Your task to perform on an android device: move an email to a new category in the gmail app Image 0: 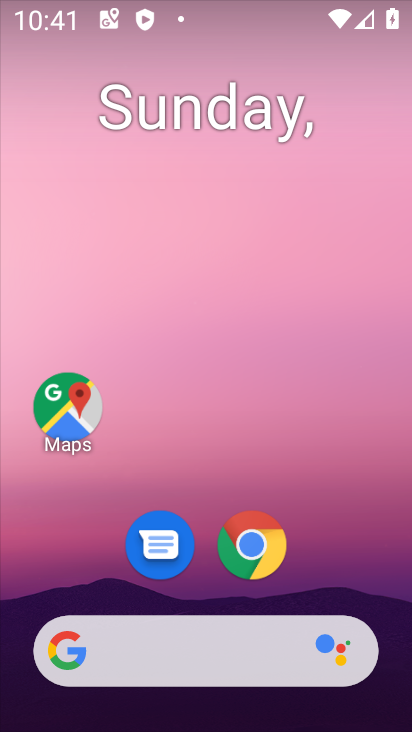
Step 0: drag from (95, 609) to (226, 136)
Your task to perform on an android device: move an email to a new category in the gmail app Image 1: 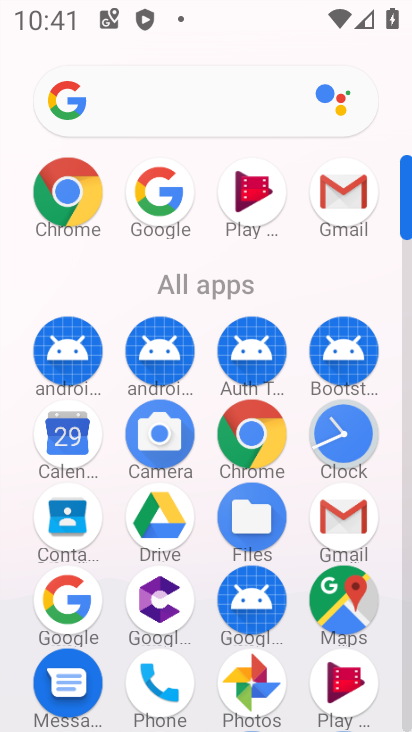
Step 1: click (373, 505)
Your task to perform on an android device: move an email to a new category in the gmail app Image 2: 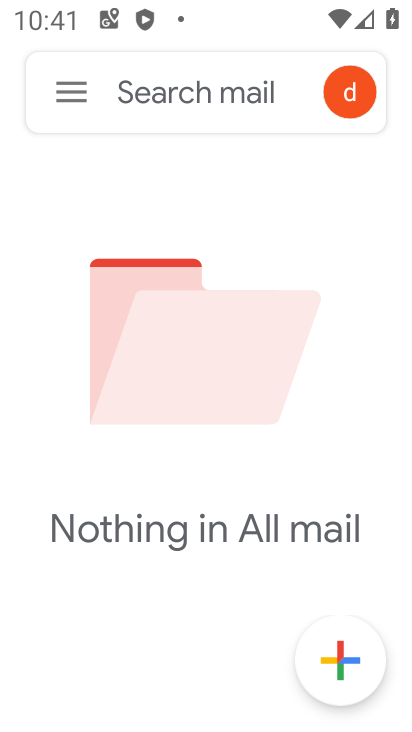
Step 2: task complete